Your task to perform on an android device: Look up "custom art" on Etsy Image 0: 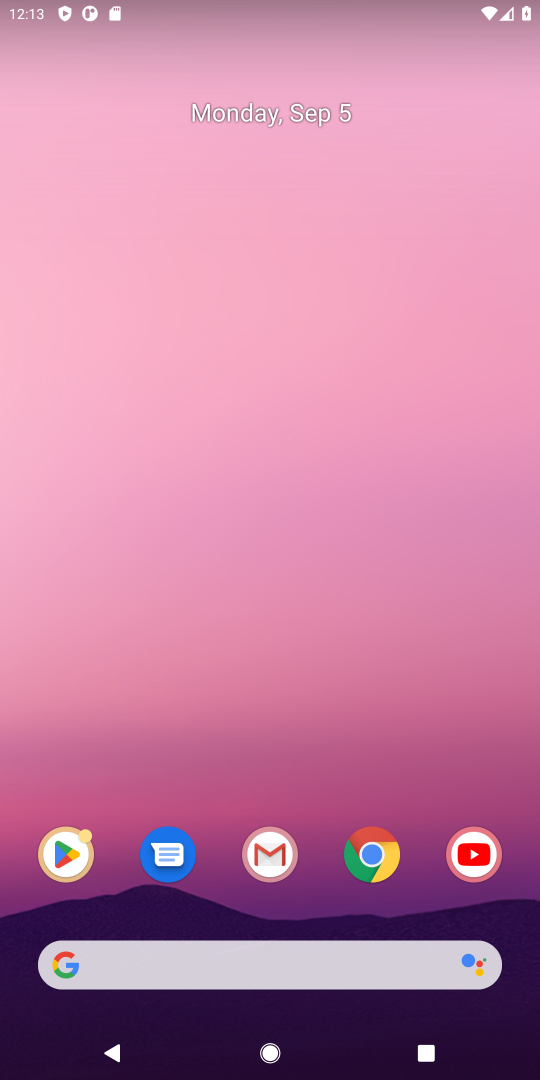
Step 0: click (372, 848)
Your task to perform on an android device: Look up "custom art" on Etsy Image 1: 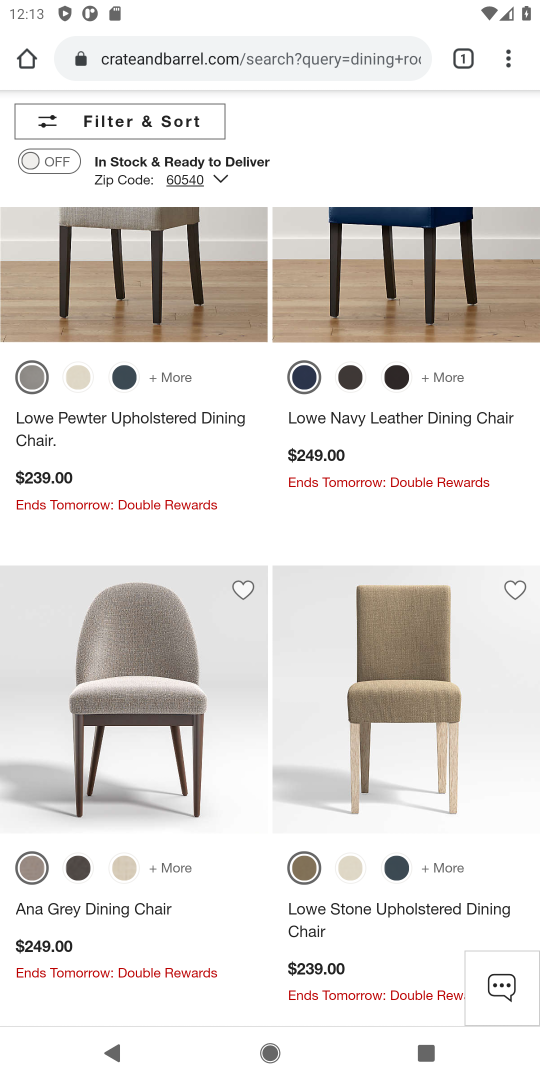
Step 1: click (302, 49)
Your task to perform on an android device: Look up "custom art" on Etsy Image 2: 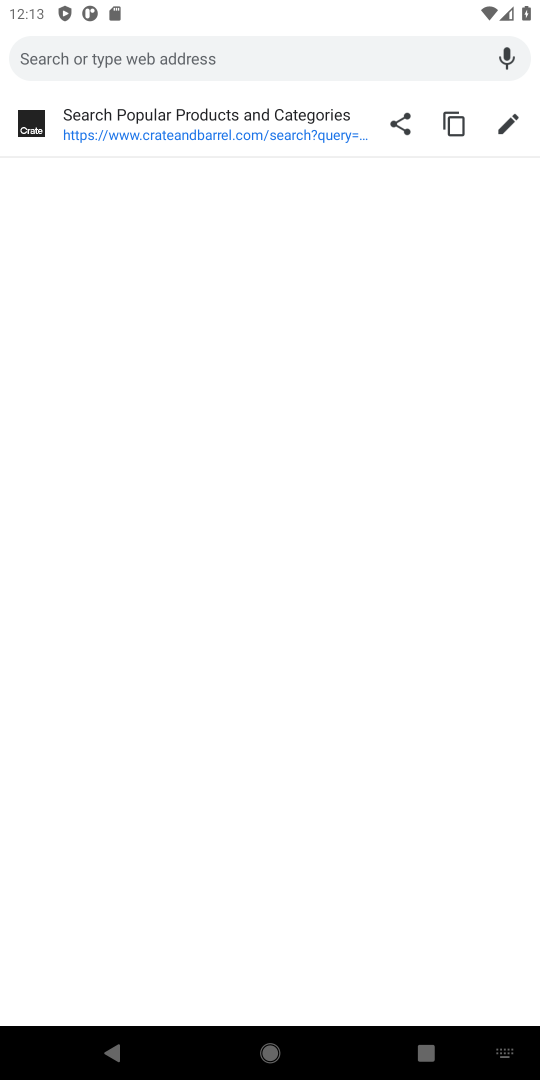
Step 2: type "Etsy"
Your task to perform on an android device: Look up "custom art" on Etsy Image 3: 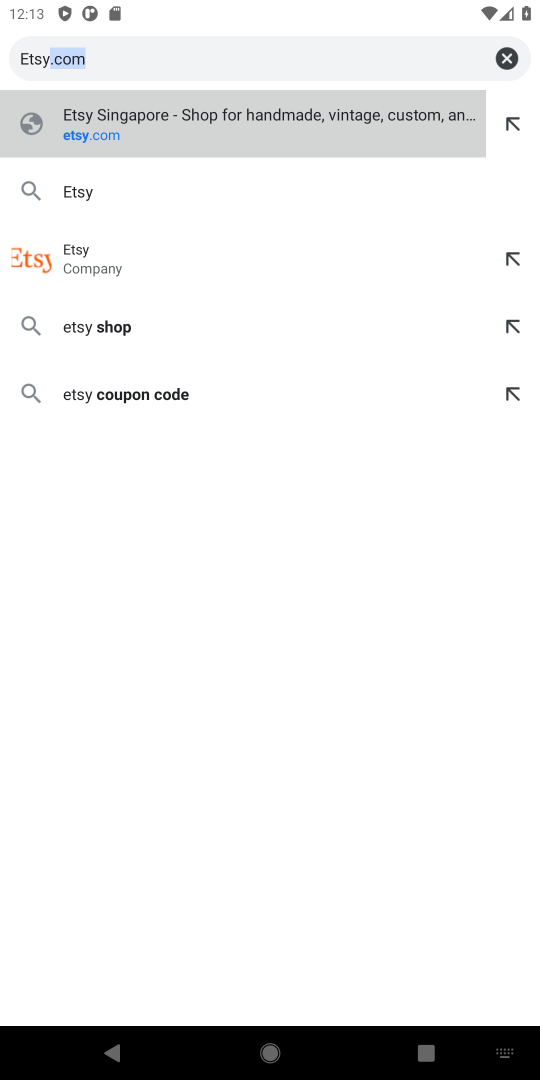
Step 3: press enter
Your task to perform on an android device: Look up "custom art" on Etsy Image 4: 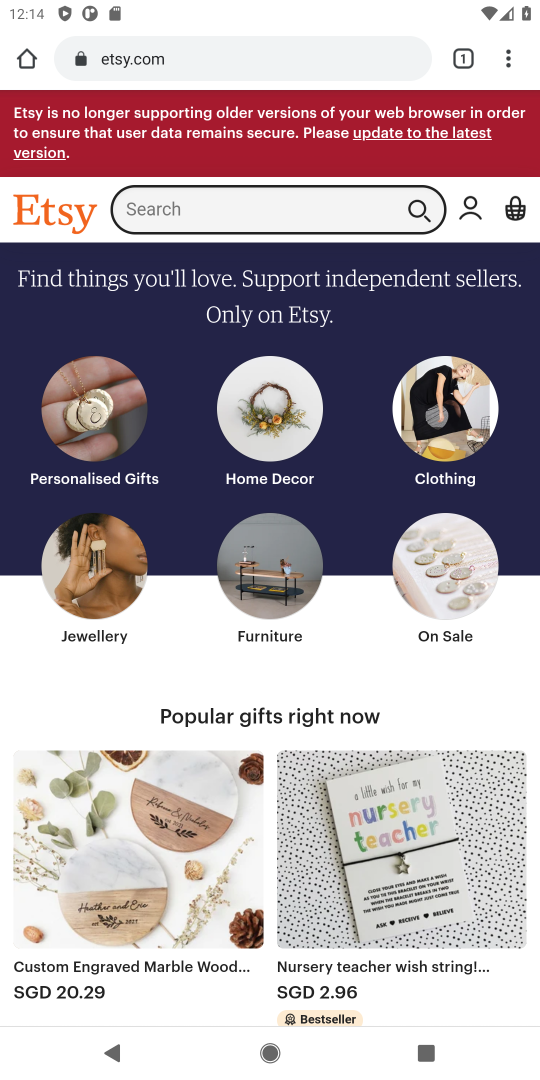
Step 4: click (266, 195)
Your task to perform on an android device: Look up "custom art" on Etsy Image 5: 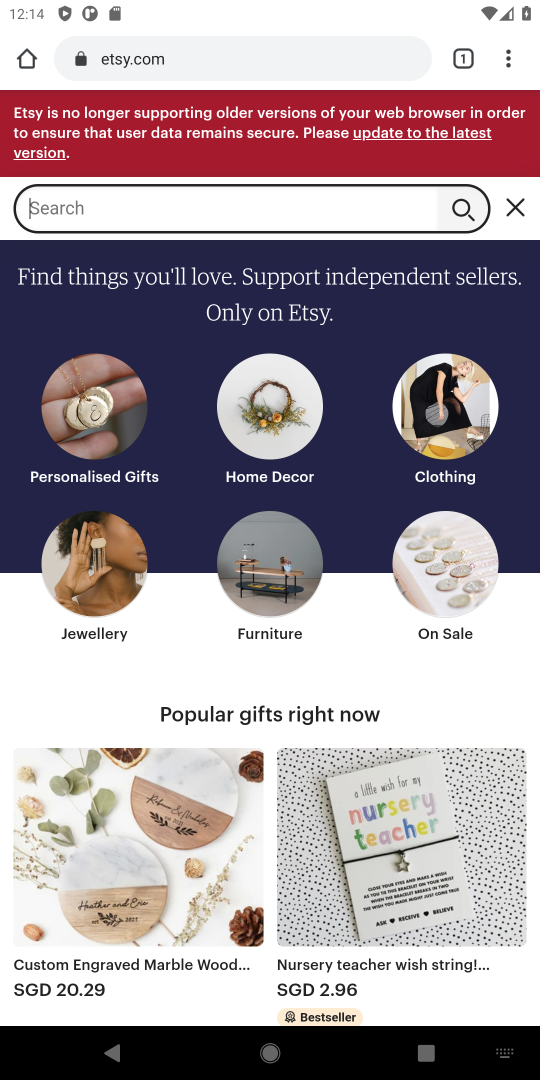
Step 5: type "custom art"
Your task to perform on an android device: Look up "custom art" on Etsy Image 6: 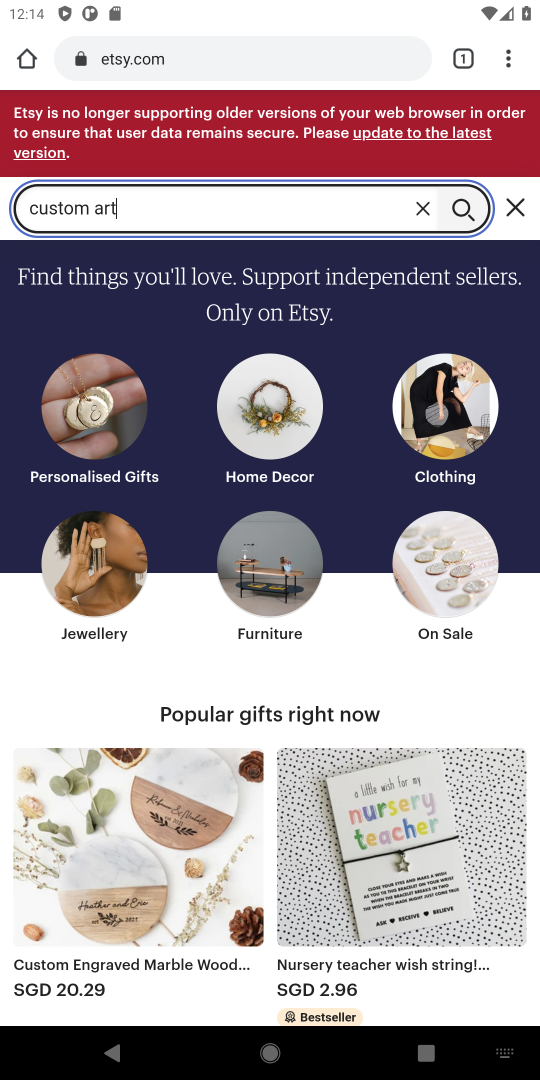
Step 6: press enter
Your task to perform on an android device: Look up "custom art" on Etsy Image 7: 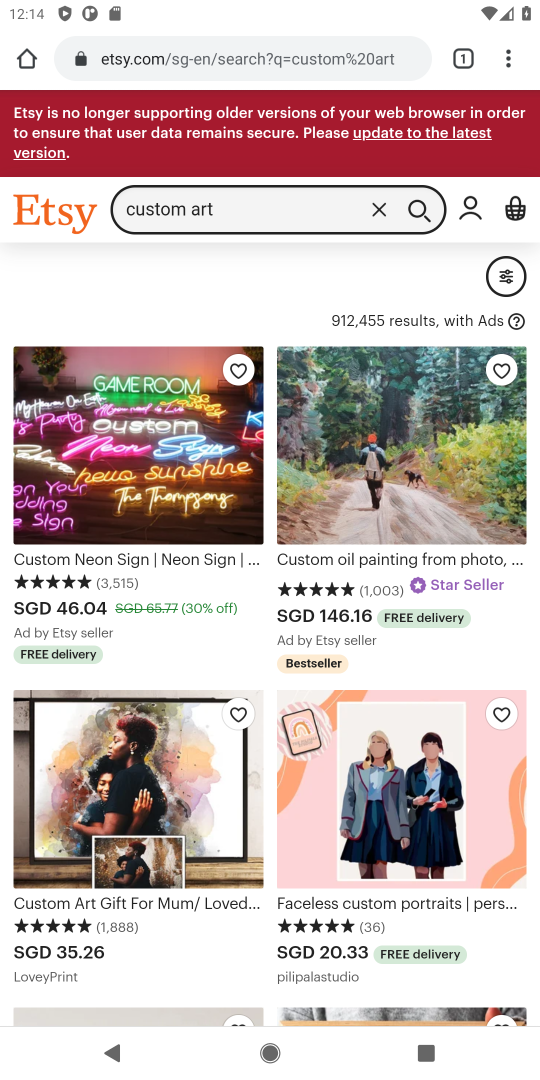
Step 7: task complete